Your task to perform on an android device: create a new album in the google photos Image 0: 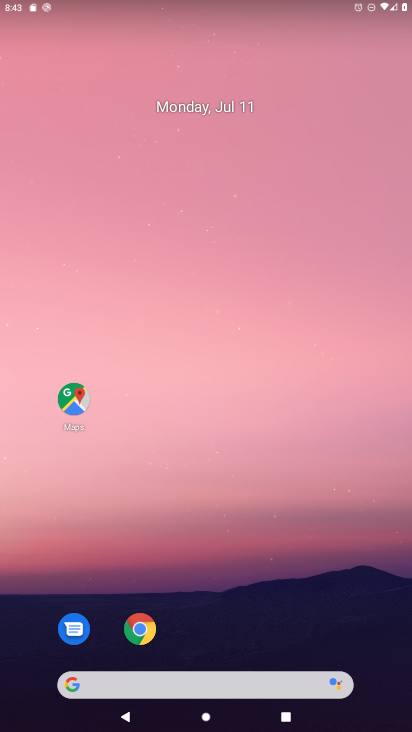
Step 0: drag from (237, 639) to (289, 114)
Your task to perform on an android device: create a new album in the google photos Image 1: 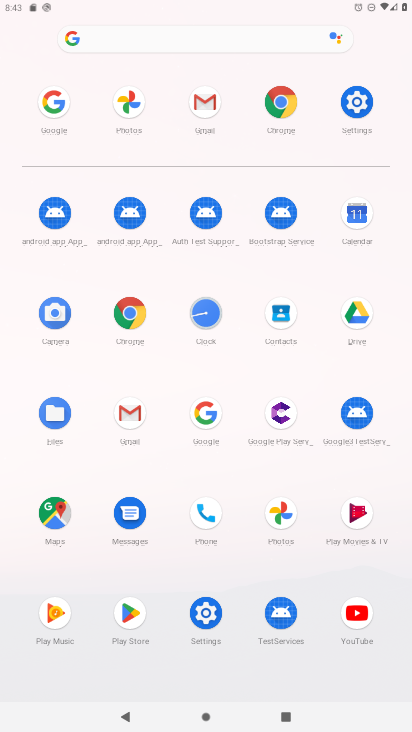
Step 1: click (280, 513)
Your task to perform on an android device: create a new album in the google photos Image 2: 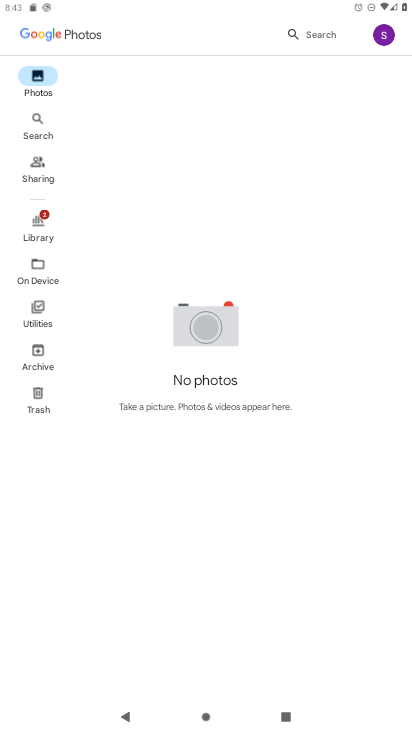
Step 2: click (36, 228)
Your task to perform on an android device: create a new album in the google photos Image 3: 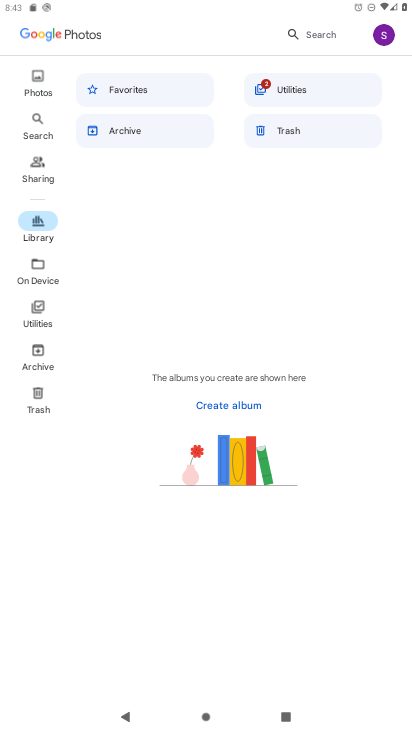
Step 3: click (220, 395)
Your task to perform on an android device: create a new album in the google photos Image 4: 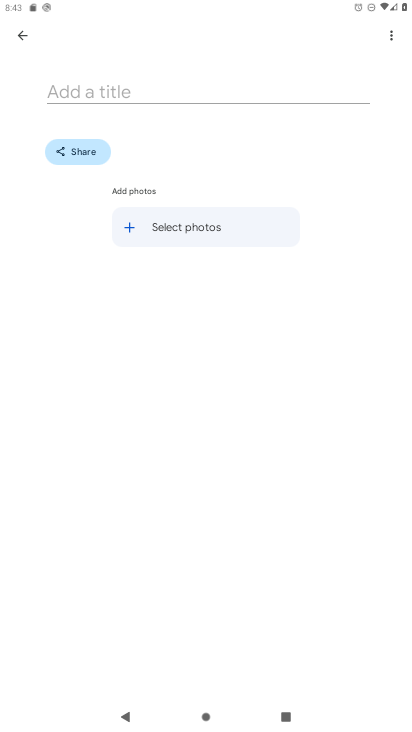
Step 4: click (171, 95)
Your task to perform on an android device: create a new album in the google photos Image 5: 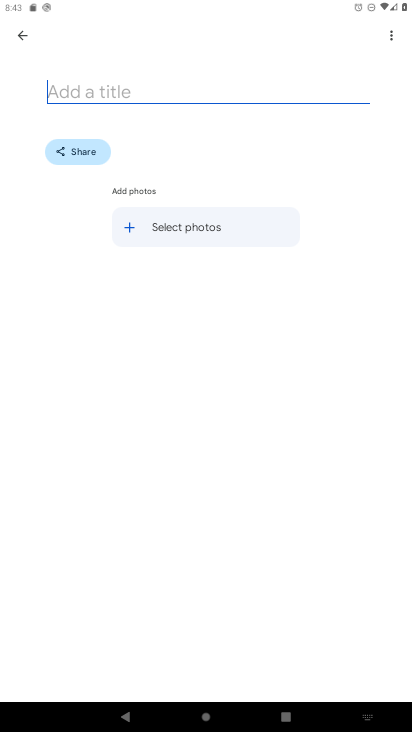
Step 5: type "jhyxg"
Your task to perform on an android device: create a new album in the google photos Image 6: 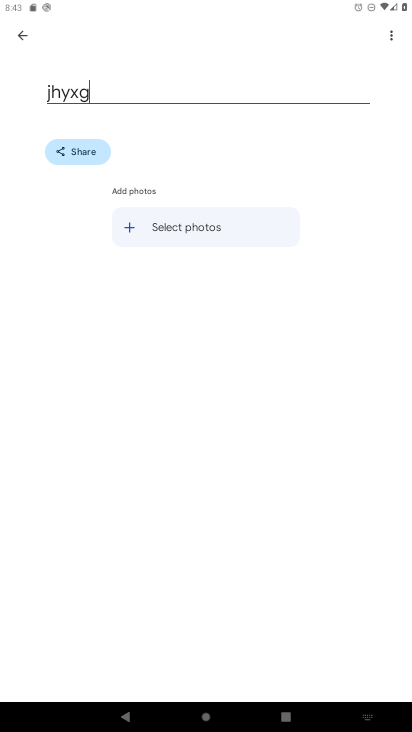
Step 6: click (128, 227)
Your task to perform on an android device: create a new album in the google photos Image 7: 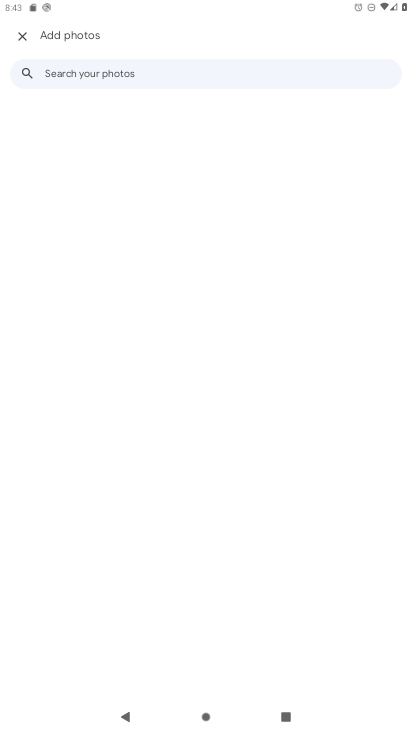
Step 7: task complete